Your task to perform on an android device: turn off sleep mode Image 0: 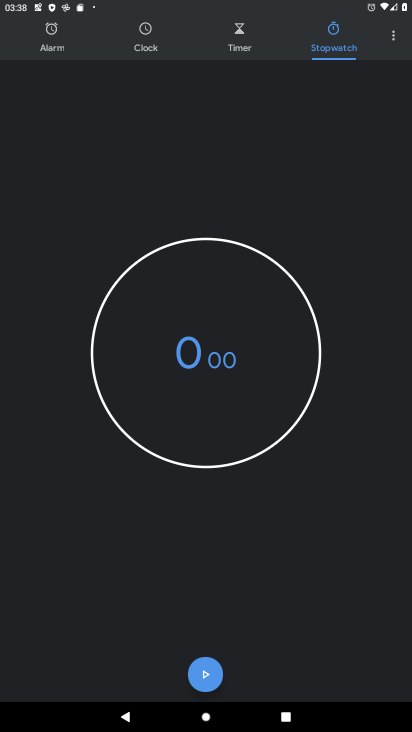
Step 0: press home button
Your task to perform on an android device: turn off sleep mode Image 1: 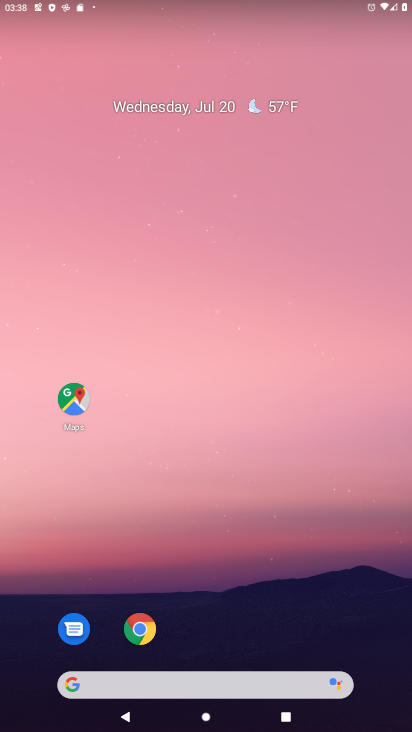
Step 1: drag from (374, 643) to (344, 123)
Your task to perform on an android device: turn off sleep mode Image 2: 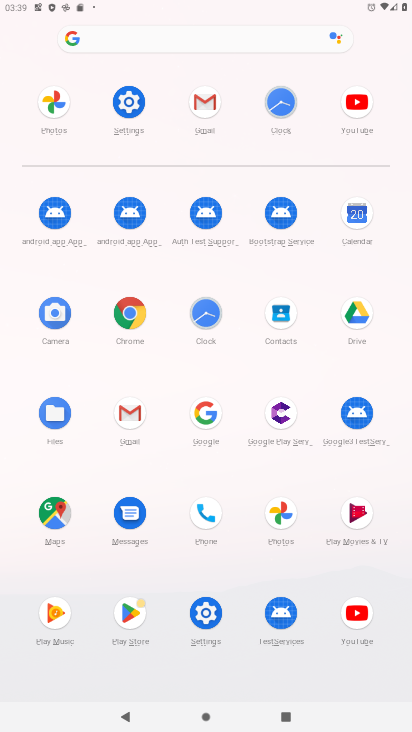
Step 2: click (205, 615)
Your task to perform on an android device: turn off sleep mode Image 3: 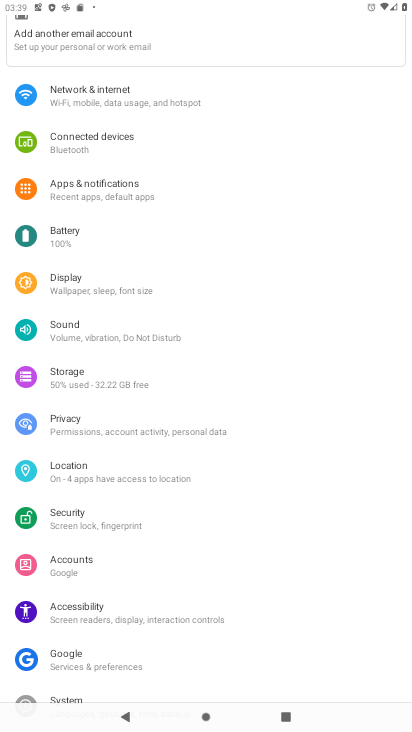
Step 3: click (68, 288)
Your task to perform on an android device: turn off sleep mode Image 4: 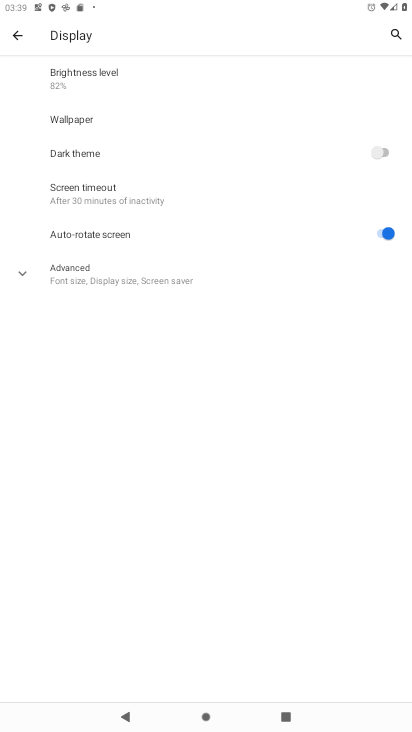
Step 4: click (23, 275)
Your task to perform on an android device: turn off sleep mode Image 5: 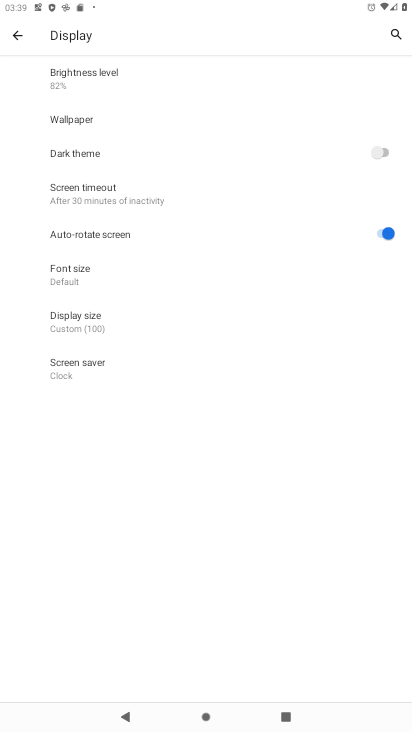
Step 5: task complete